Your task to perform on an android device: change keyboard looks Image 0: 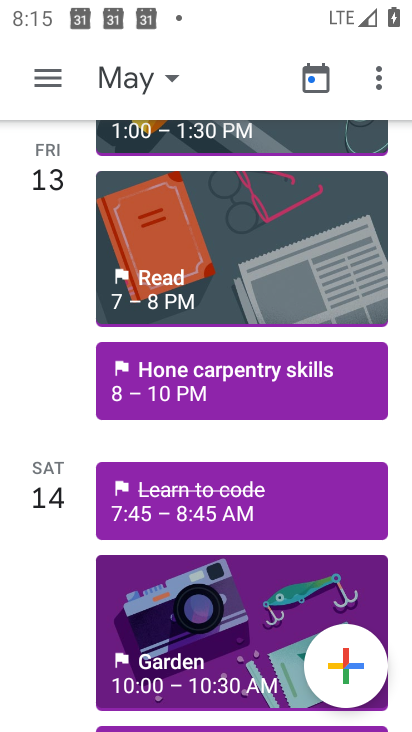
Step 0: press home button
Your task to perform on an android device: change keyboard looks Image 1: 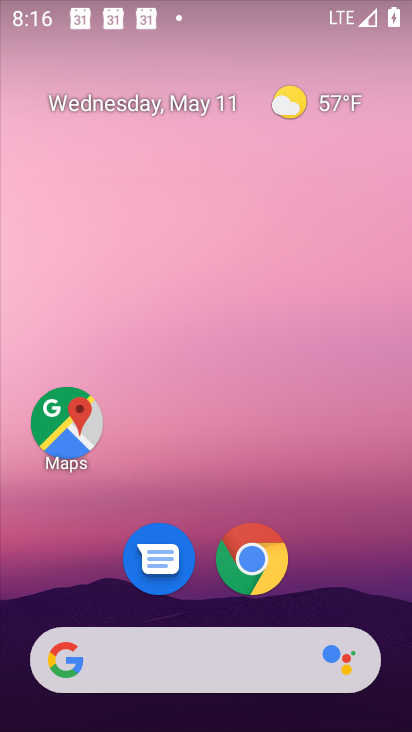
Step 1: drag from (321, 563) to (371, 33)
Your task to perform on an android device: change keyboard looks Image 2: 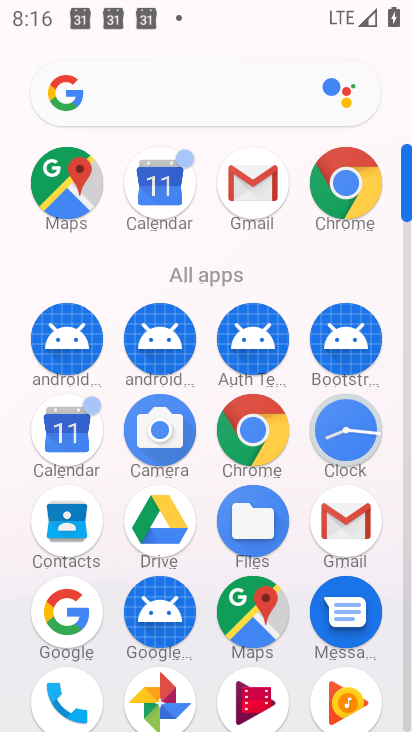
Step 2: click (404, 721)
Your task to perform on an android device: change keyboard looks Image 3: 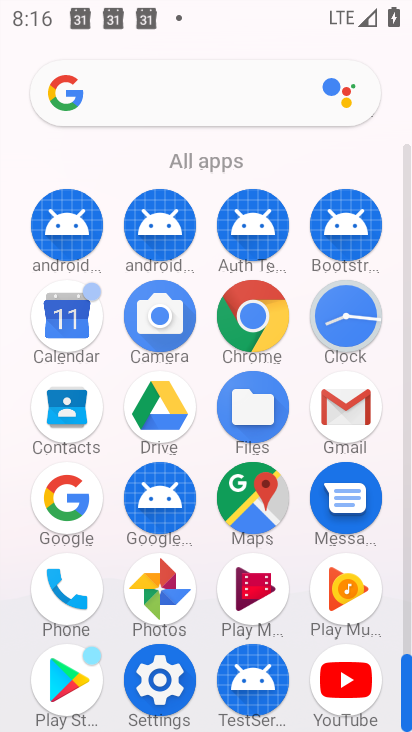
Step 3: click (175, 680)
Your task to perform on an android device: change keyboard looks Image 4: 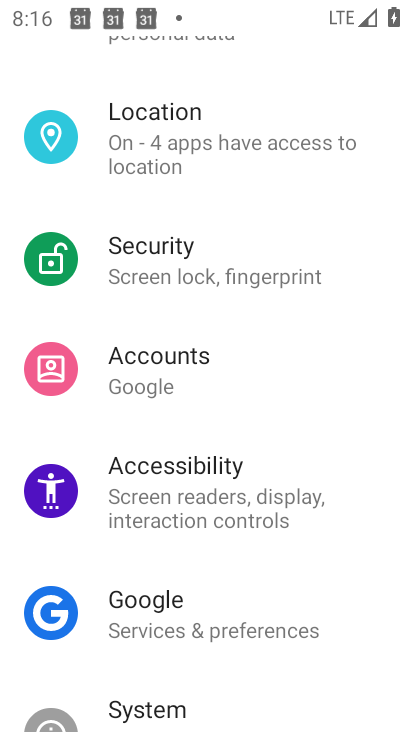
Step 4: drag from (222, 625) to (239, 495)
Your task to perform on an android device: change keyboard looks Image 5: 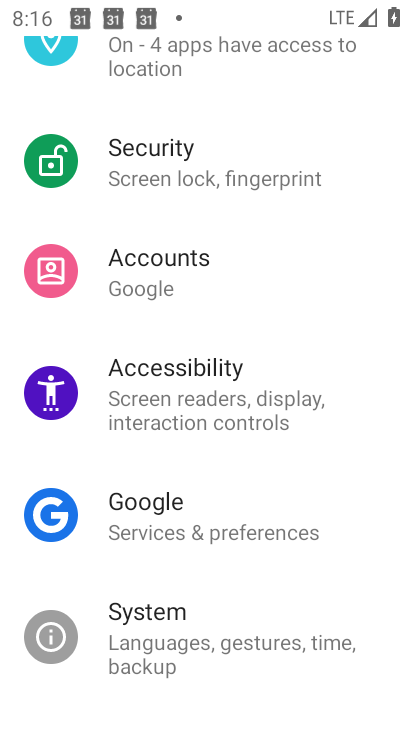
Step 5: click (218, 624)
Your task to perform on an android device: change keyboard looks Image 6: 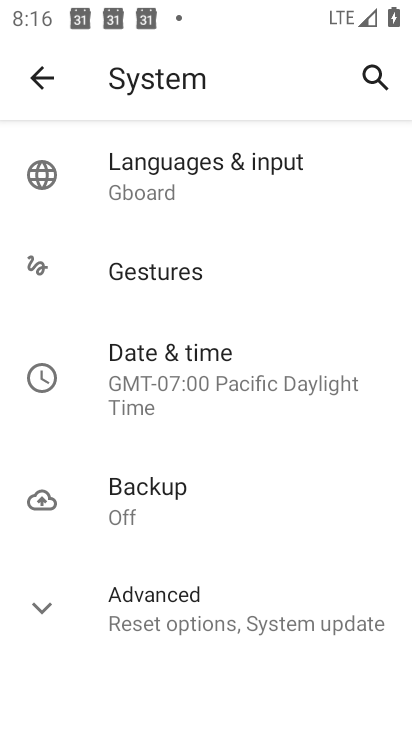
Step 6: click (290, 56)
Your task to perform on an android device: change keyboard looks Image 7: 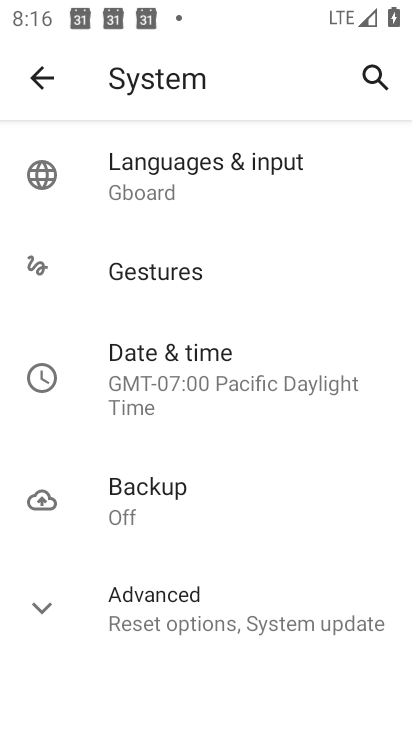
Step 7: click (275, 147)
Your task to perform on an android device: change keyboard looks Image 8: 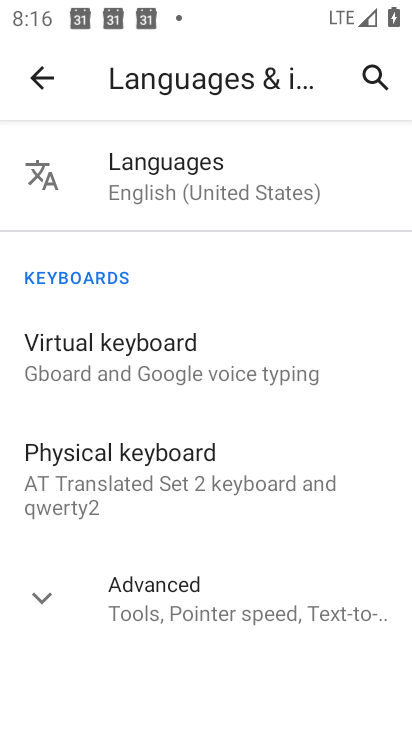
Step 8: click (205, 350)
Your task to perform on an android device: change keyboard looks Image 9: 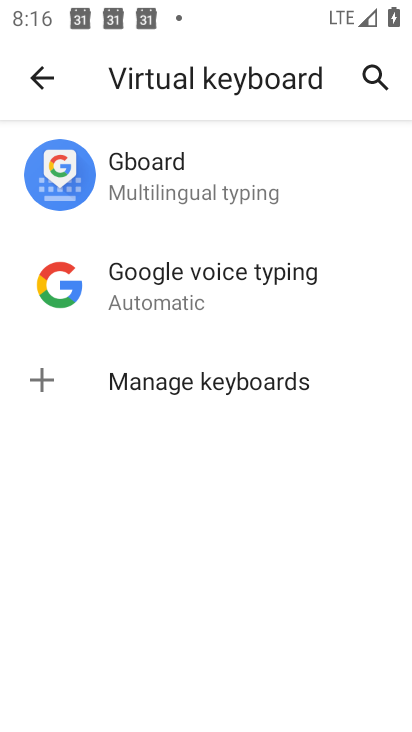
Step 9: click (221, 138)
Your task to perform on an android device: change keyboard looks Image 10: 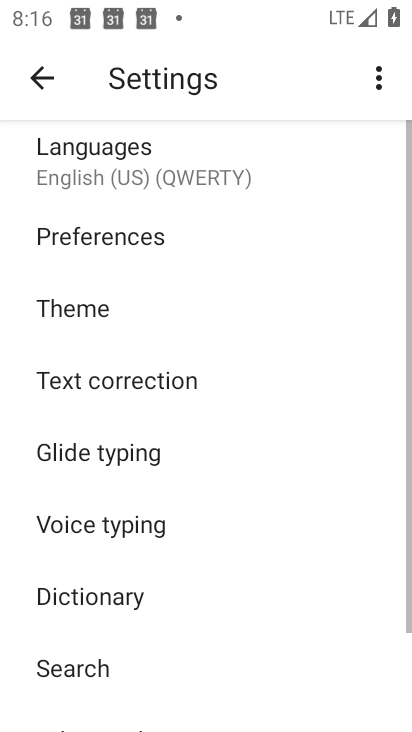
Step 10: click (179, 280)
Your task to perform on an android device: change keyboard looks Image 11: 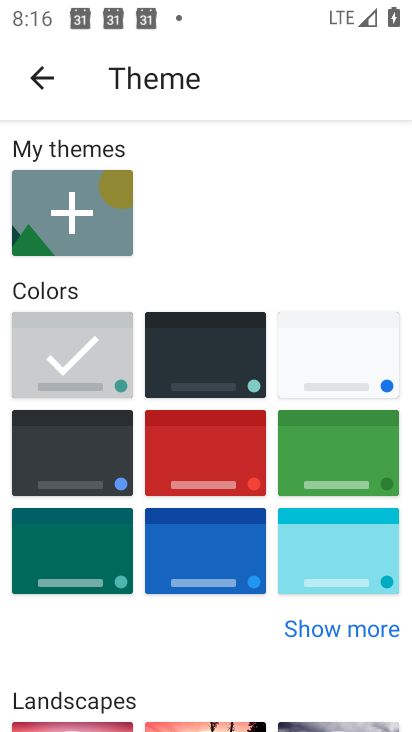
Step 11: click (170, 346)
Your task to perform on an android device: change keyboard looks Image 12: 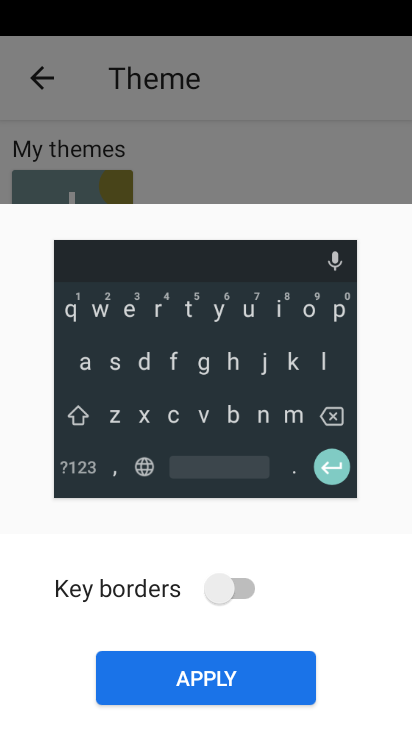
Step 12: click (170, 676)
Your task to perform on an android device: change keyboard looks Image 13: 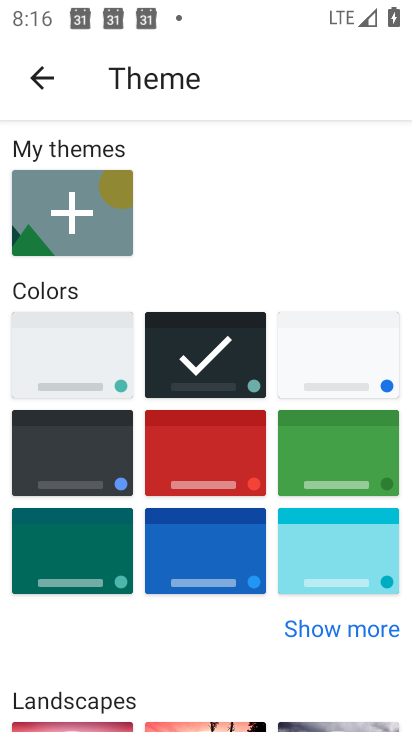
Step 13: task complete